Your task to perform on an android device: Go to internet settings Image 0: 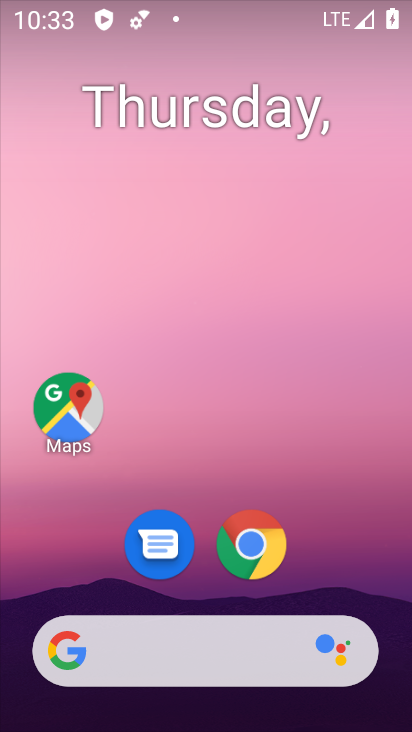
Step 0: drag from (286, 449) to (190, 271)
Your task to perform on an android device: Go to internet settings Image 1: 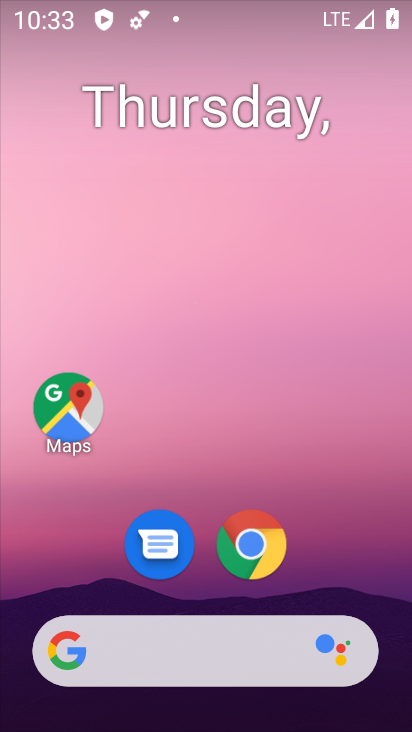
Step 1: drag from (311, 577) to (141, 247)
Your task to perform on an android device: Go to internet settings Image 2: 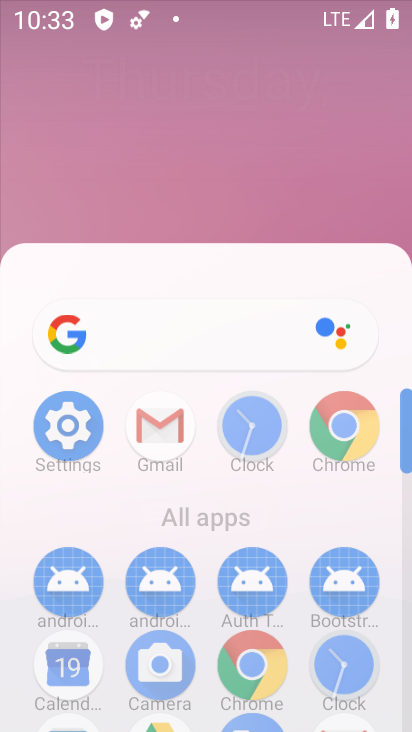
Step 2: click (116, 131)
Your task to perform on an android device: Go to internet settings Image 3: 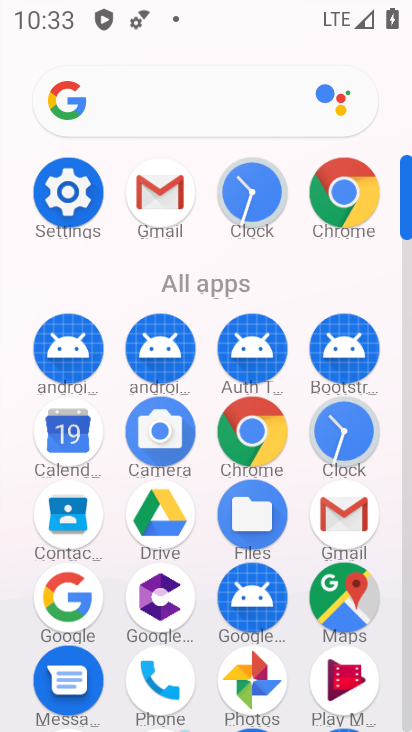
Step 3: click (69, 210)
Your task to perform on an android device: Go to internet settings Image 4: 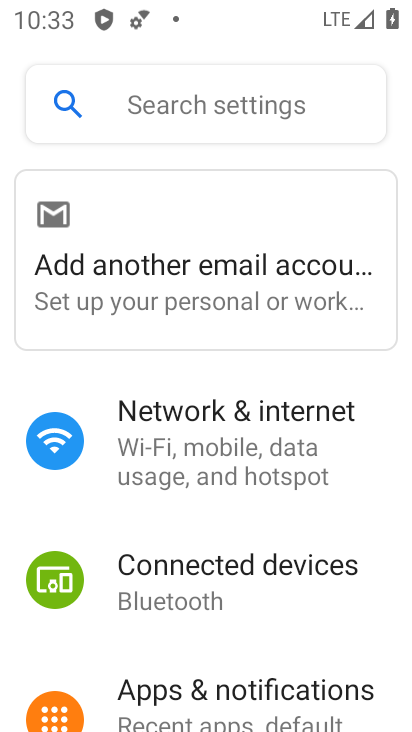
Step 4: click (267, 413)
Your task to perform on an android device: Go to internet settings Image 5: 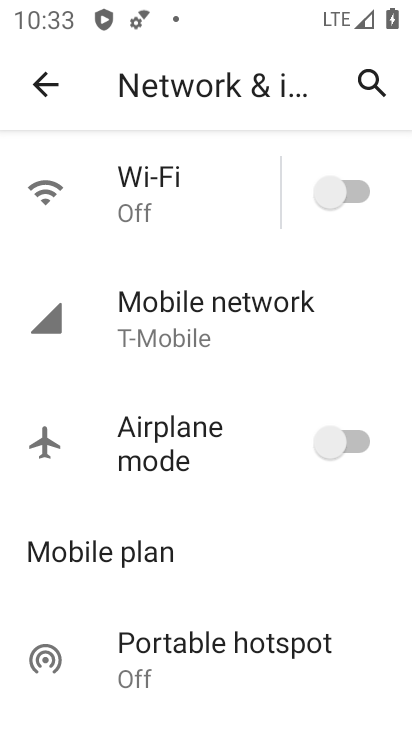
Step 5: task complete